Your task to perform on an android device: Search for Mexican restaurants on Maps Image 0: 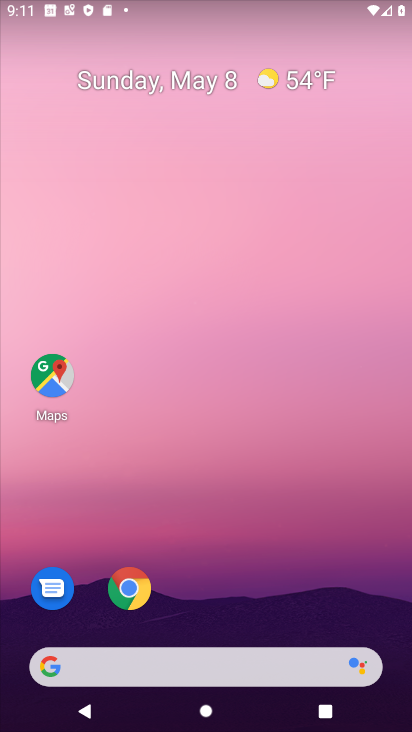
Step 0: click (49, 361)
Your task to perform on an android device: Search for Mexican restaurants on Maps Image 1: 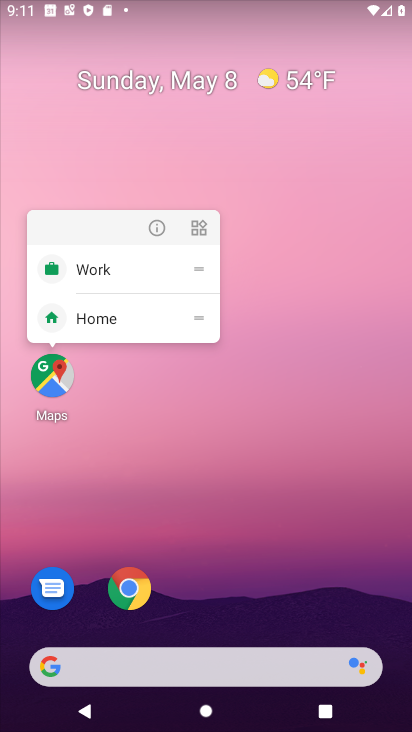
Step 1: click (159, 228)
Your task to perform on an android device: Search for Mexican restaurants on Maps Image 2: 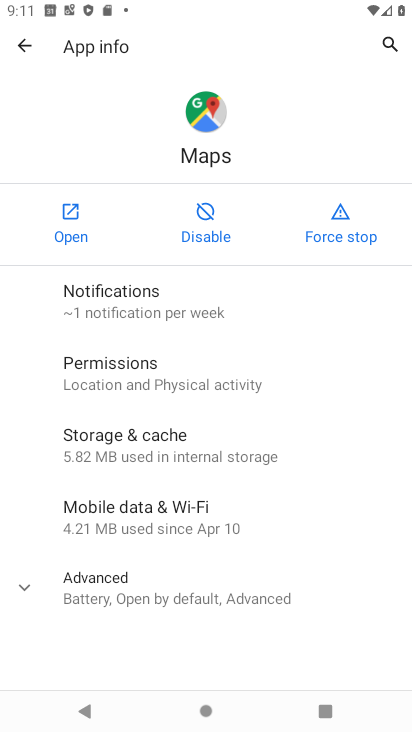
Step 2: click (63, 226)
Your task to perform on an android device: Search for Mexican restaurants on Maps Image 3: 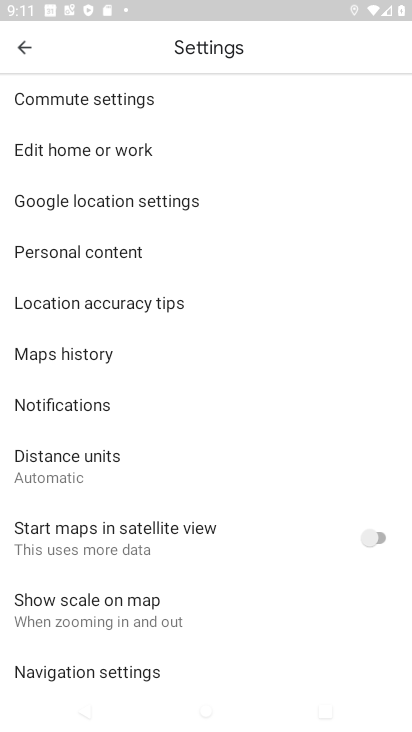
Step 3: press back button
Your task to perform on an android device: Search for Mexican restaurants on Maps Image 4: 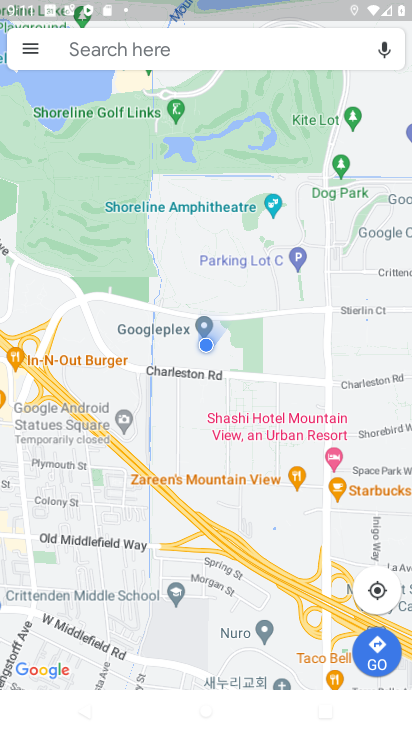
Step 4: click (160, 49)
Your task to perform on an android device: Search for Mexican restaurants on Maps Image 5: 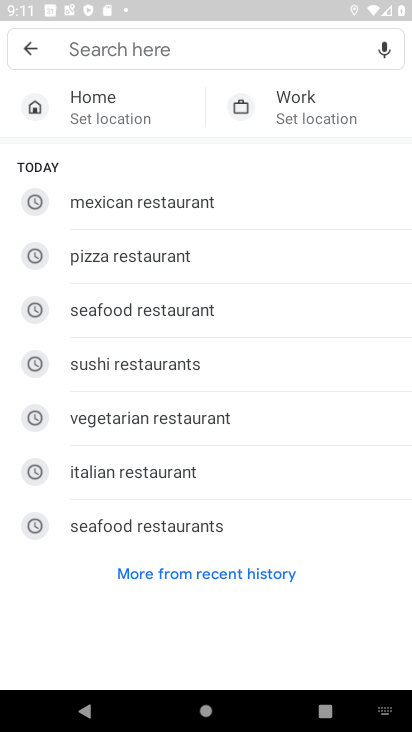
Step 5: click (128, 198)
Your task to perform on an android device: Search for Mexican restaurants on Maps Image 6: 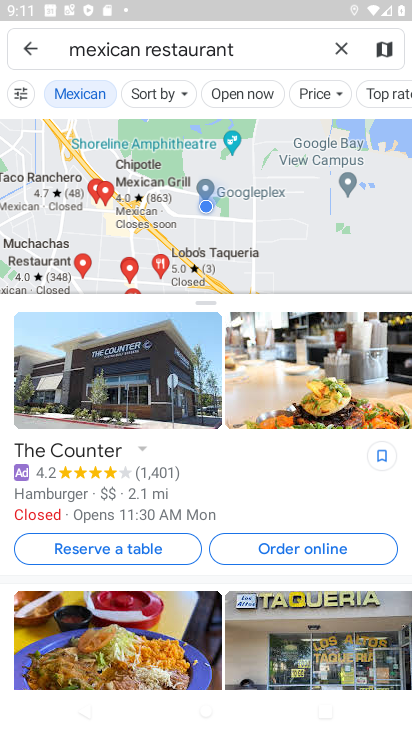
Step 6: task complete